Your task to perform on an android device: Play the new Drake video on YouTube Image 0: 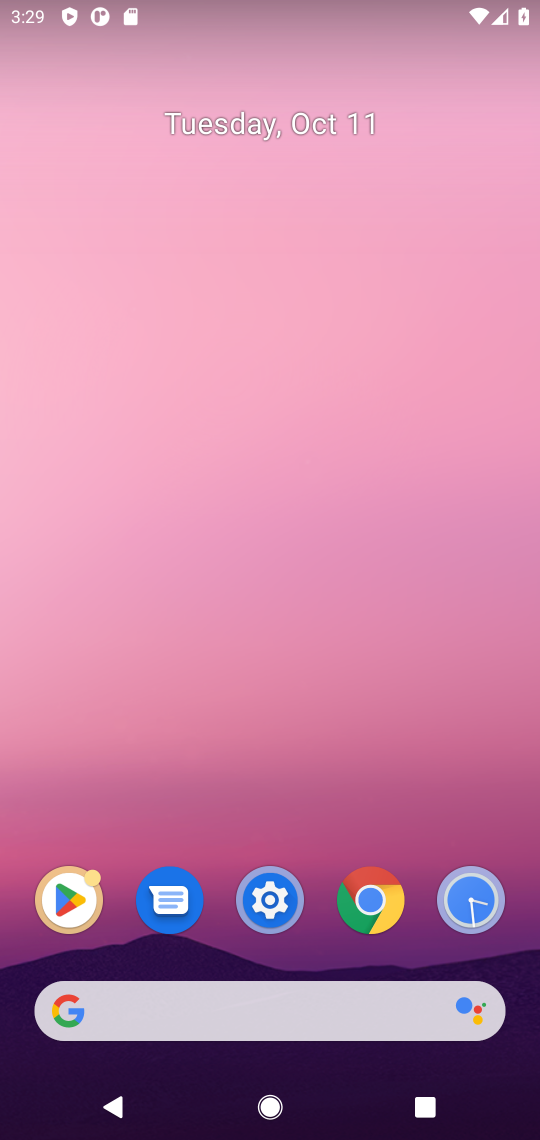
Step 0: drag from (309, 913) to (309, 250)
Your task to perform on an android device: Play the new Drake video on YouTube Image 1: 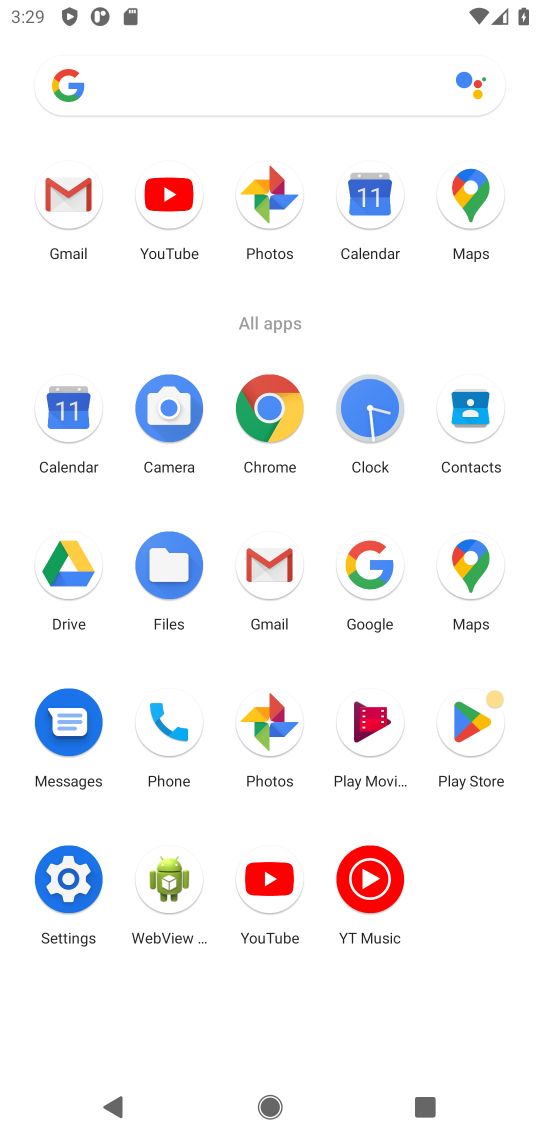
Step 1: click (149, 202)
Your task to perform on an android device: Play the new Drake video on YouTube Image 2: 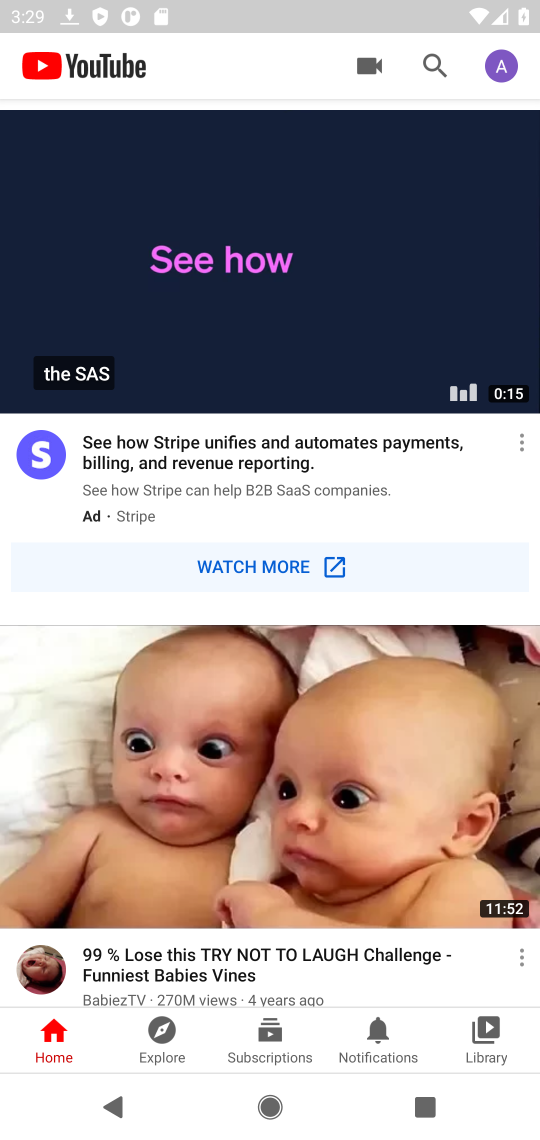
Step 2: click (431, 75)
Your task to perform on an android device: Play the new Drake video on YouTube Image 3: 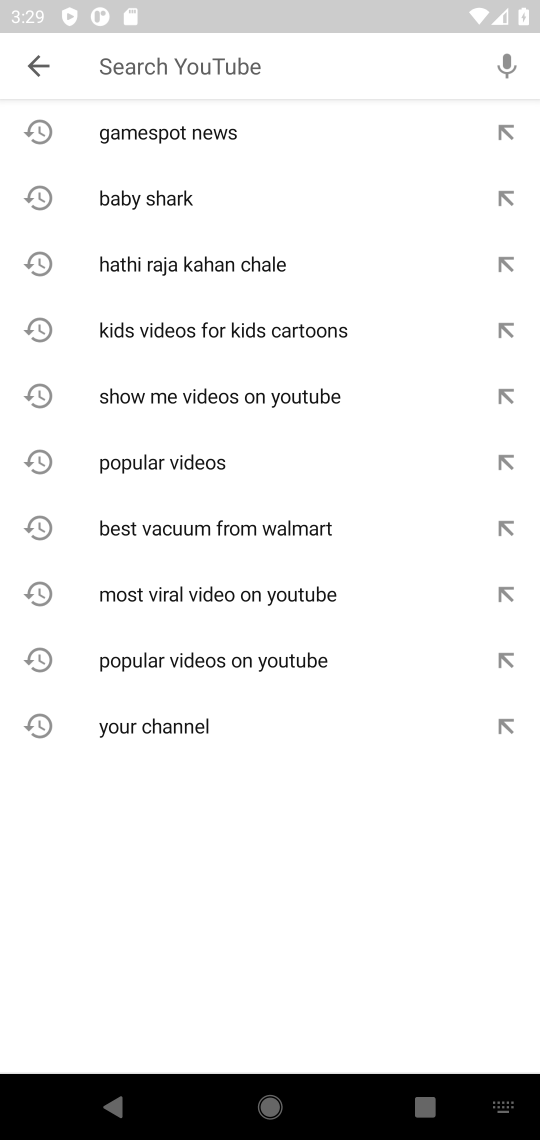
Step 3: type " new Drake video "
Your task to perform on an android device: Play the new Drake video on YouTube Image 4: 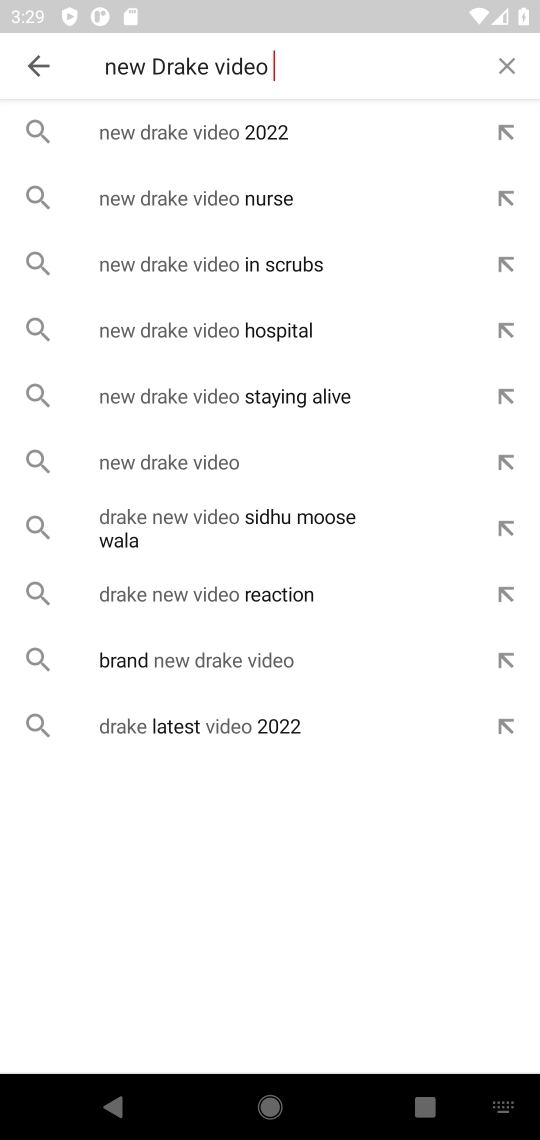
Step 4: type ""
Your task to perform on an android device: Play the new Drake video on YouTube Image 5: 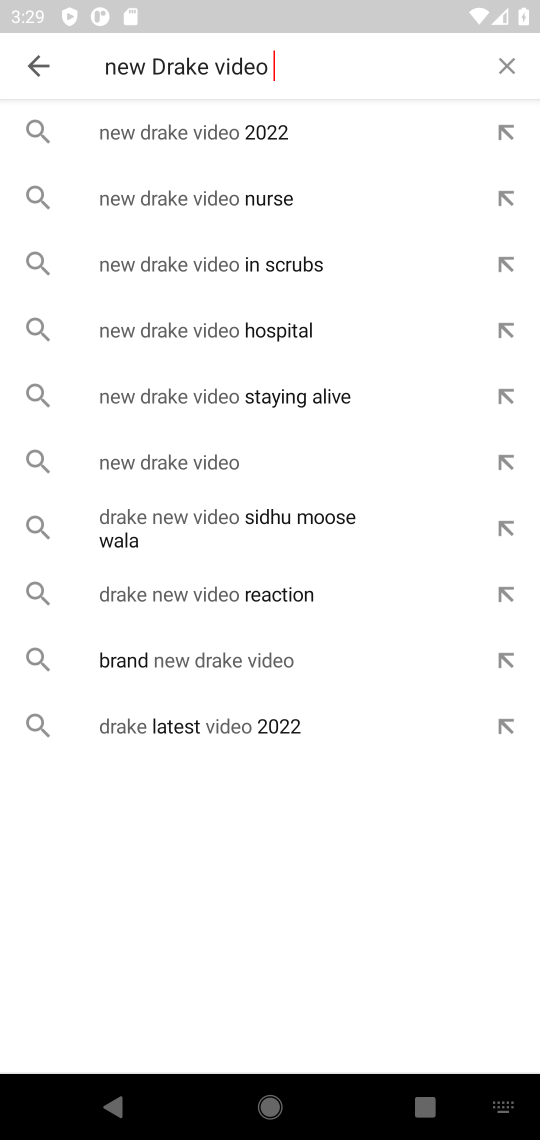
Step 5: press enter
Your task to perform on an android device: Play the new Drake video on YouTube Image 6: 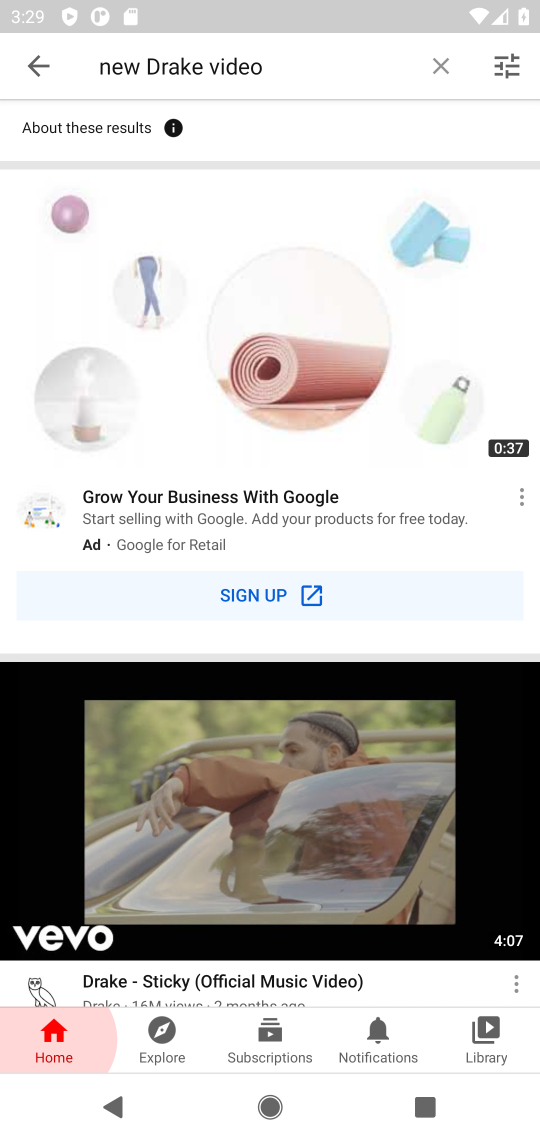
Step 6: click (283, 825)
Your task to perform on an android device: Play the new Drake video on YouTube Image 7: 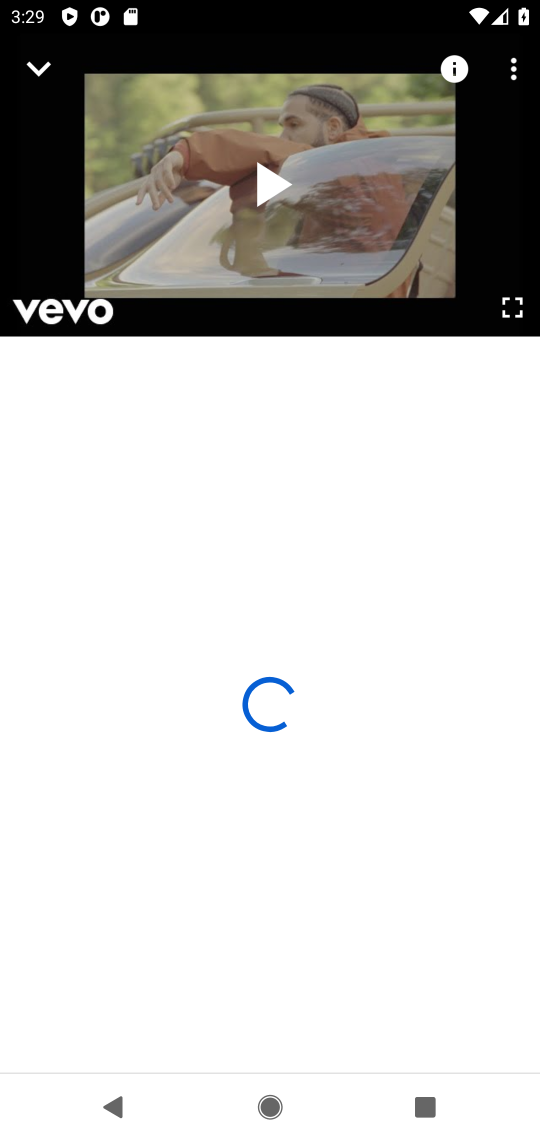
Step 7: drag from (283, 825) to (298, 776)
Your task to perform on an android device: Play the new Drake video on YouTube Image 8: 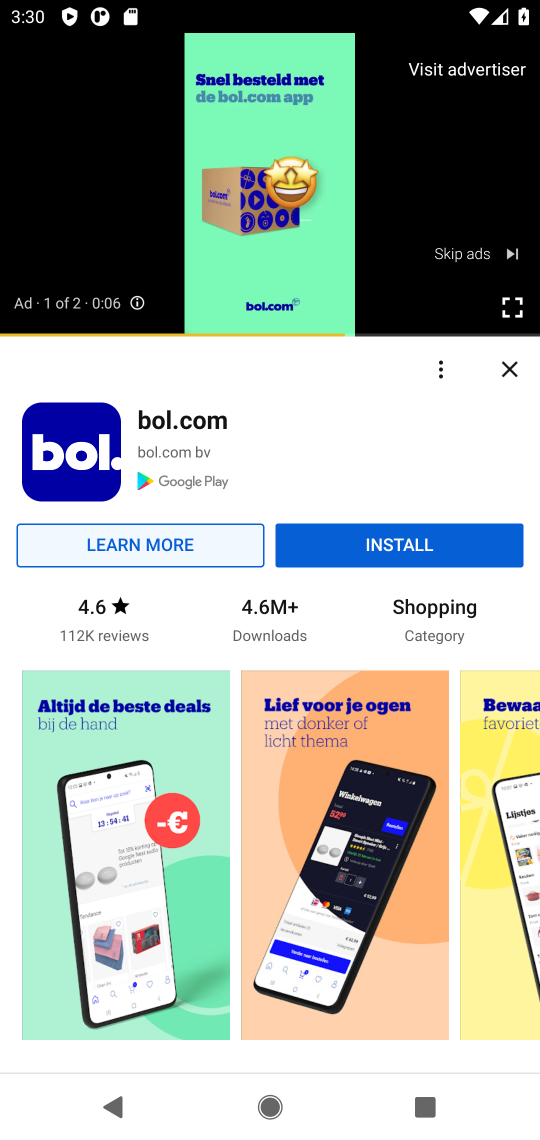
Step 8: click (496, 259)
Your task to perform on an android device: Play the new Drake video on YouTube Image 9: 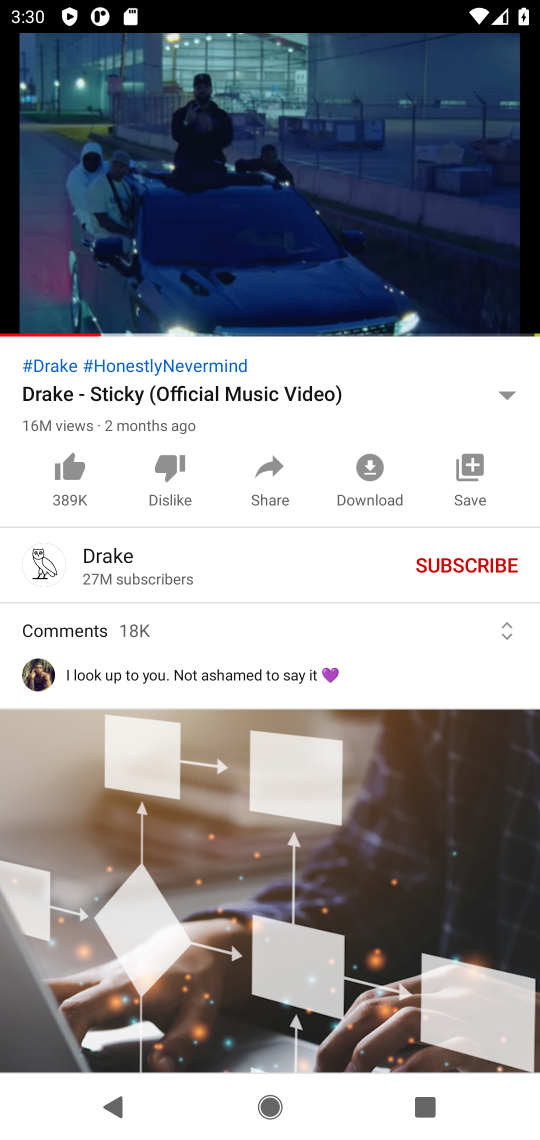
Step 9: drag from (282, 947) to (317, 443)
Your task to perform on an android device: Play the new Drake video on YouTube Image 10: 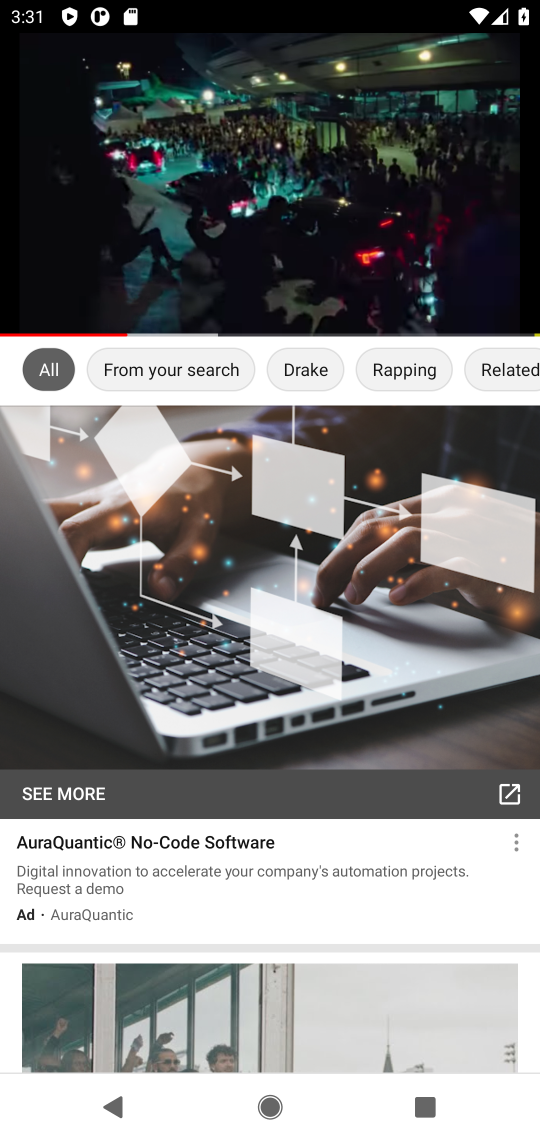
Step 10: drag from (353, 875) to (358, 523)
Your task to perform on an android device: Play the new Drake video on YouTube Image 11: 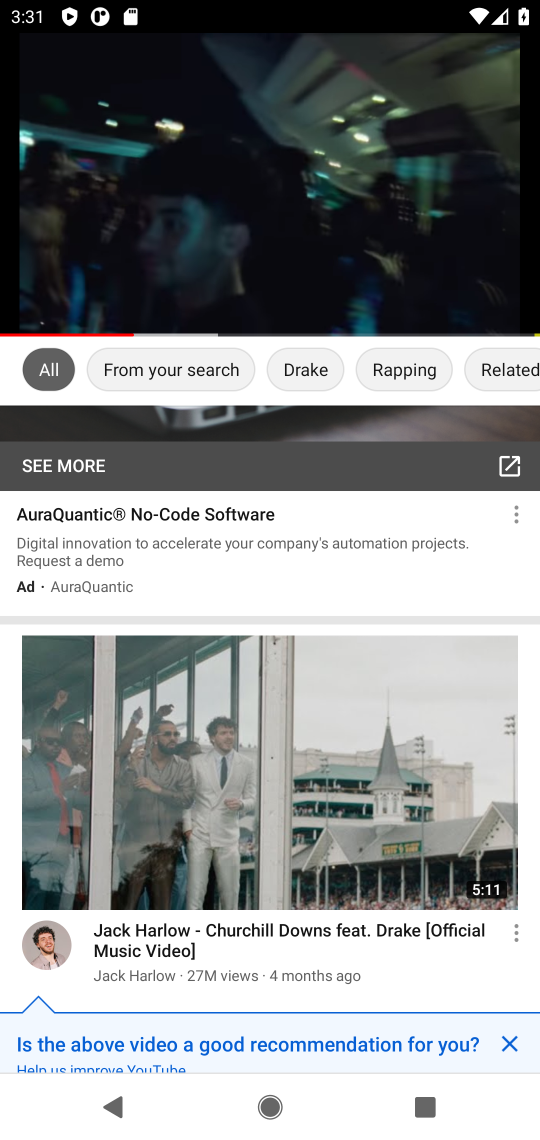
Step 11: click (391, 188)
Your task to perform on an android device: Play the new Drake video on YouTube Image 12: 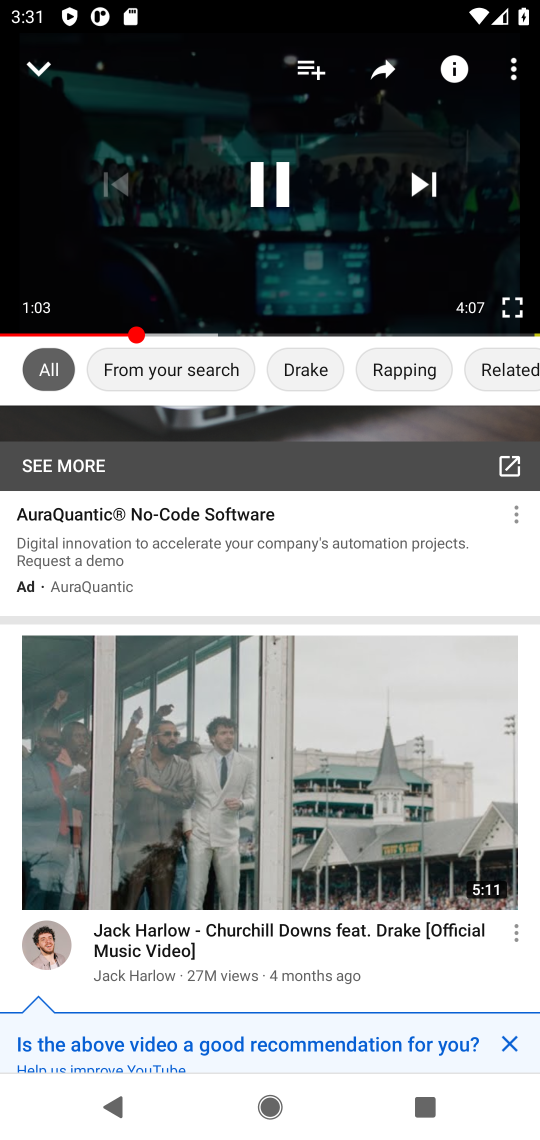
Step 12: drag from (384, 339) to (476, 1134)
Your task to perform on an android device: Play the new Drake video on YouTube Image 13: 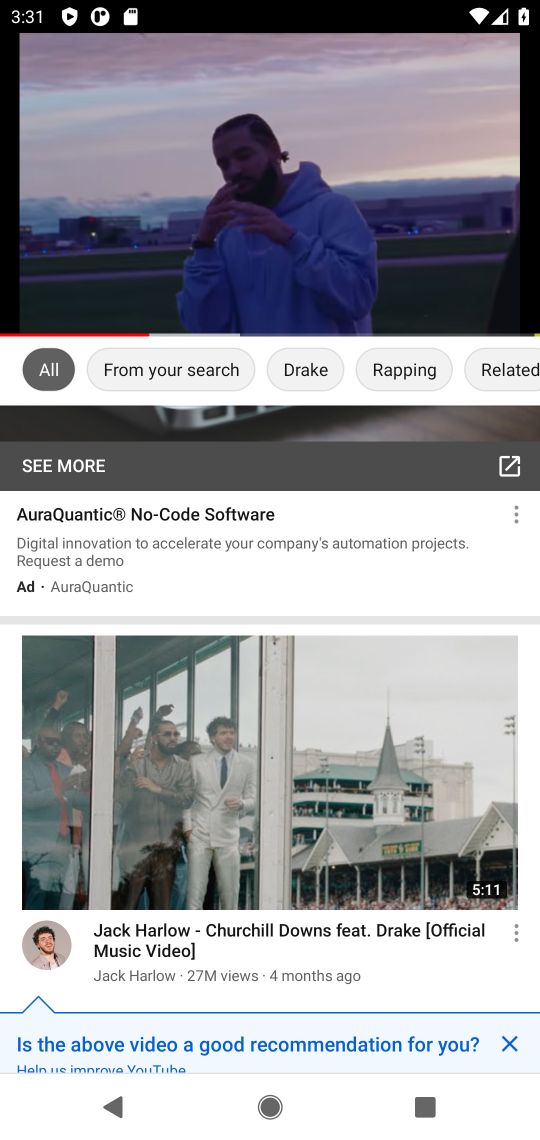
Step 13: drag from (234, 396) to (297, 904)
Your task to perform on an android device: Play the new Drake video on YouTube Image 14: 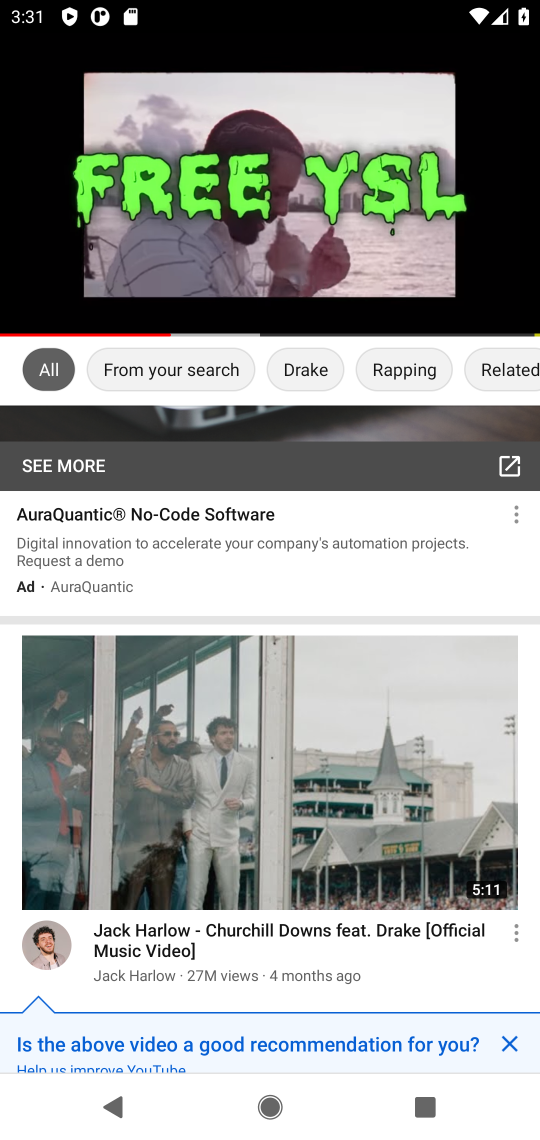
Step 14: click (318, 670)
Your task to perform on an android device: Play the new Drake video on YouTube Image 15: 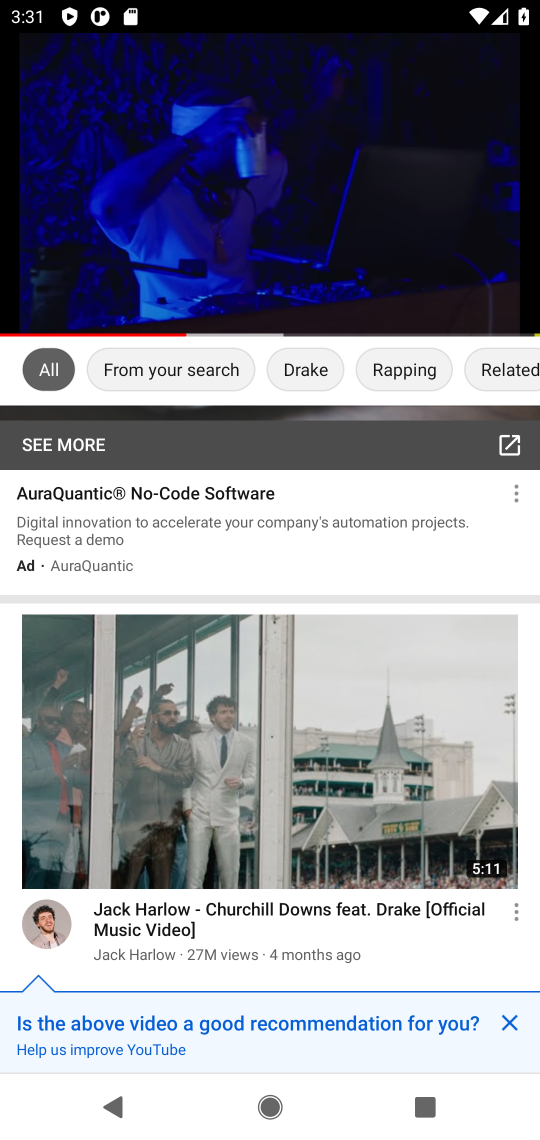
Step 15: click (283, 235)
Your task to perform on an android device: Play the new Drake video on YouTube Image 16: 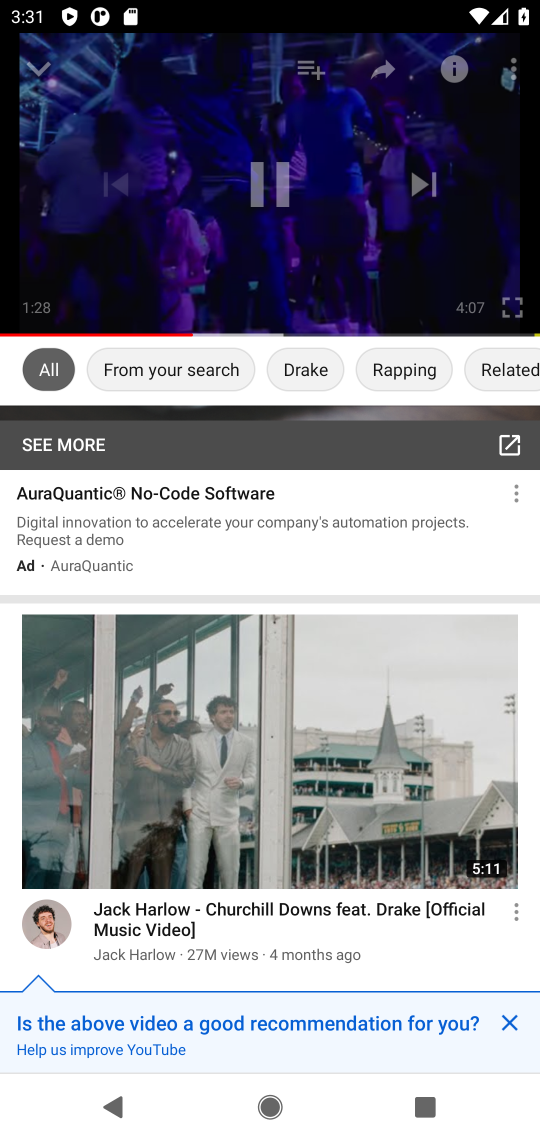
Step 16: click (353, 477)
Your task to perform on an android device: Play the new Drake video on YouTube Image 17: 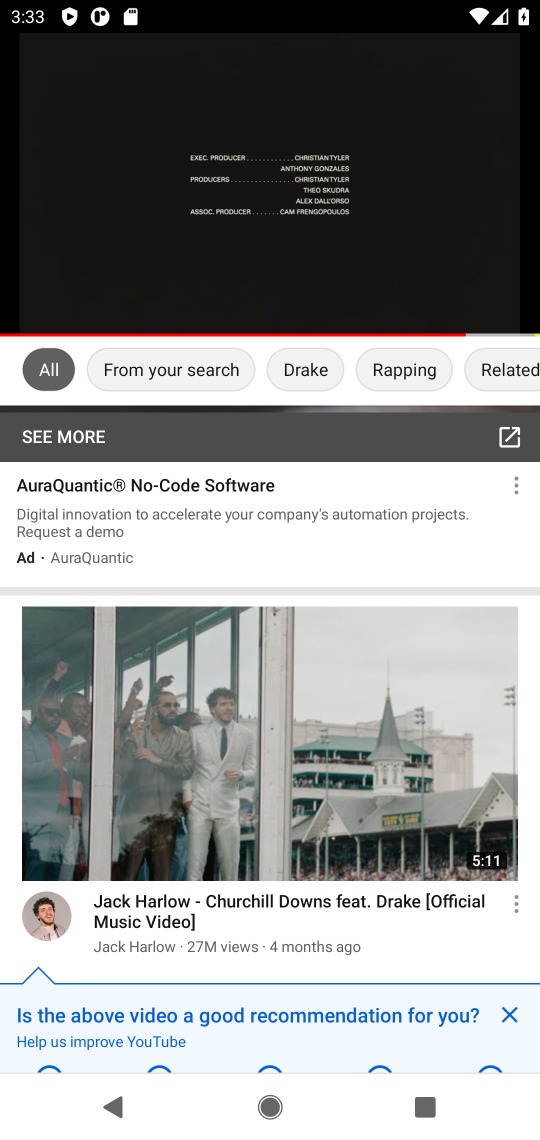
Step 17: task complete